Your task to perform on an android device: toggle translation in the chrome app Image 0: 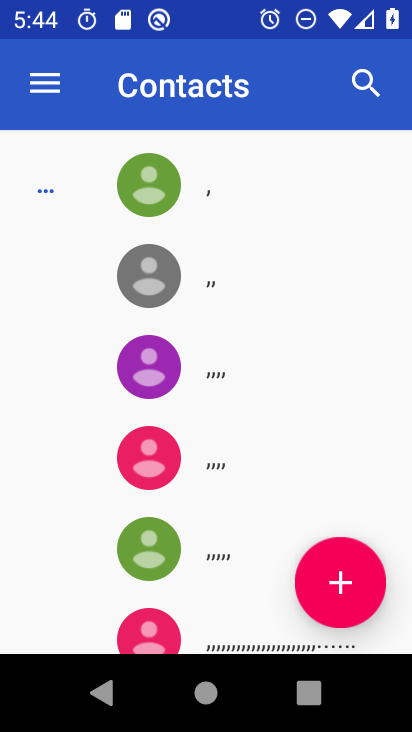
Step 0: press home button
Your task to perform on an android device: toggle translation in the chrome app Image 1: 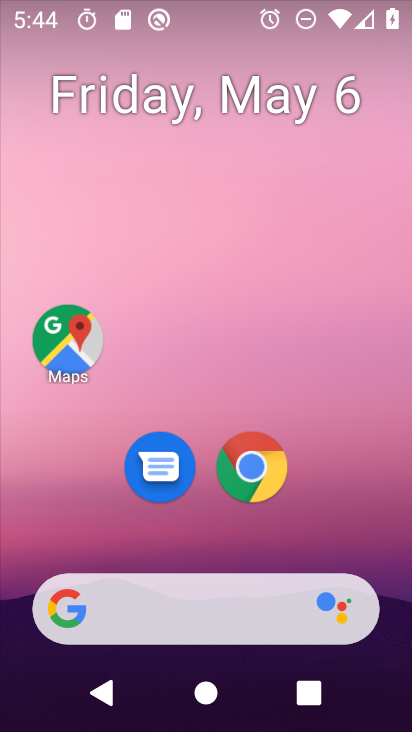
Step 1: drag from (259, 537) to (232, 303)
Your task to perform on an android device: toggle translation in the chrome app Image 2: 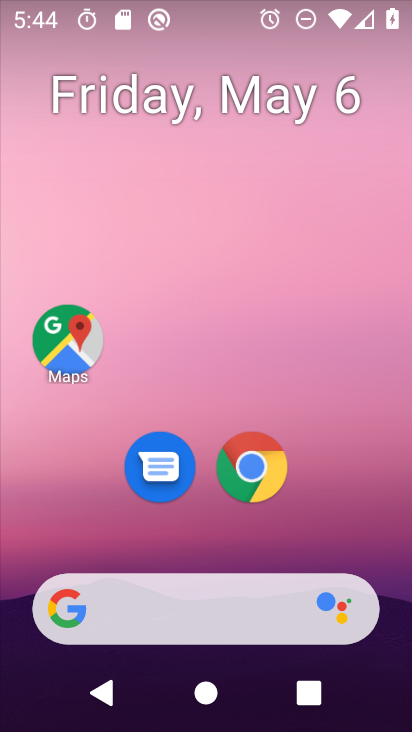
Step 2: click (249, 484)
Your task to perform on an android device: toggle translation in the chrome app Image 3: 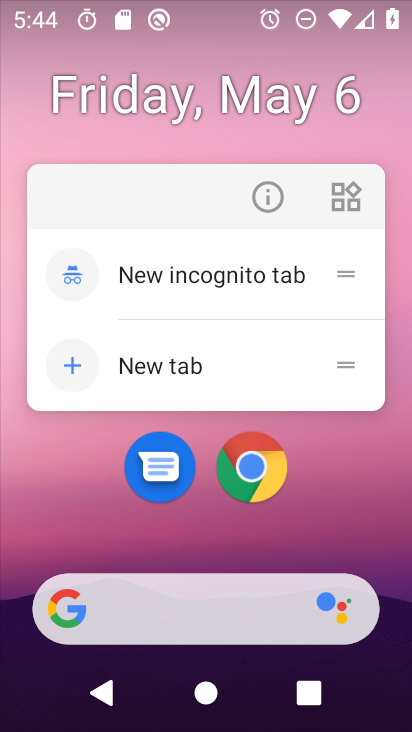
Step 3: click (254, 480)
Your task to perform on an android device: toggle translation in the chrome app Image 4: 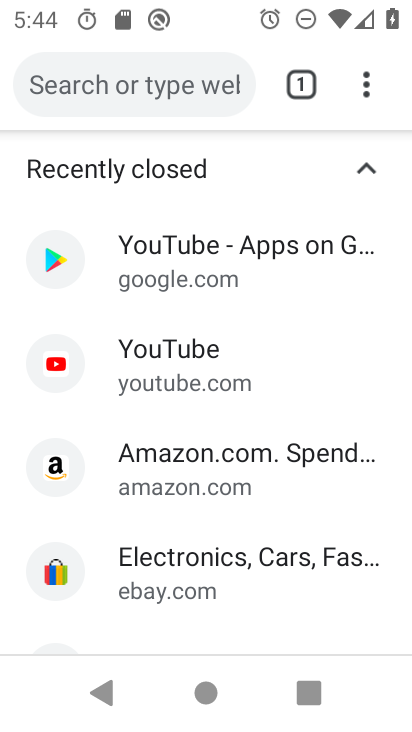
Step 4: click (366, 79)
Your task to perform on an android device: toggle translation in the chrome app Image 5: 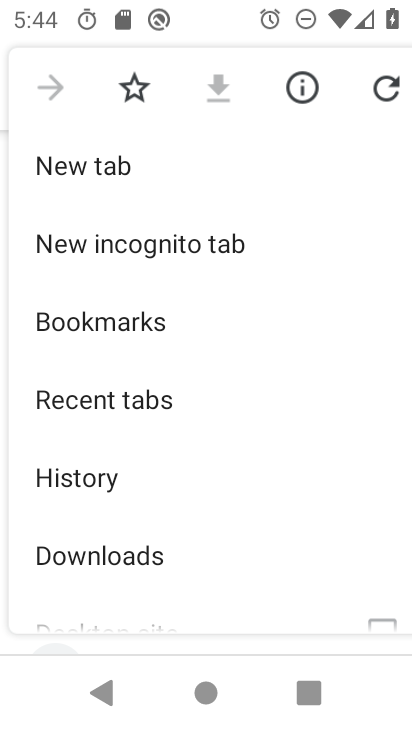
Step 5: drag from (229, 526) to (155, 160)
Your task to perform on an android device: toggle translation in the chrome app Image 6: 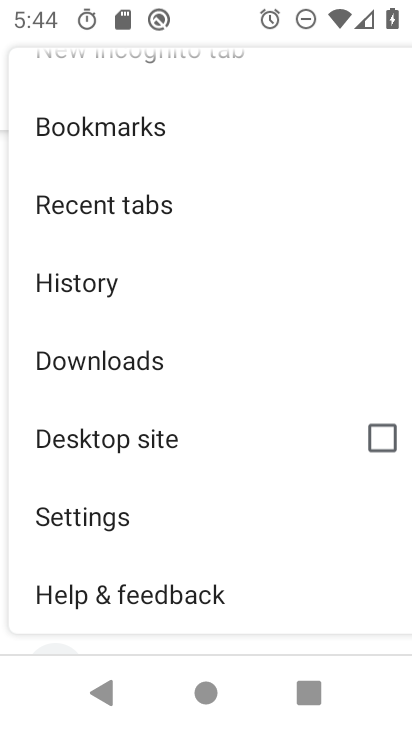
Step 6: click (118, 509)
Your task to perform on an android device: toggle translation in the chrome app Image 7: 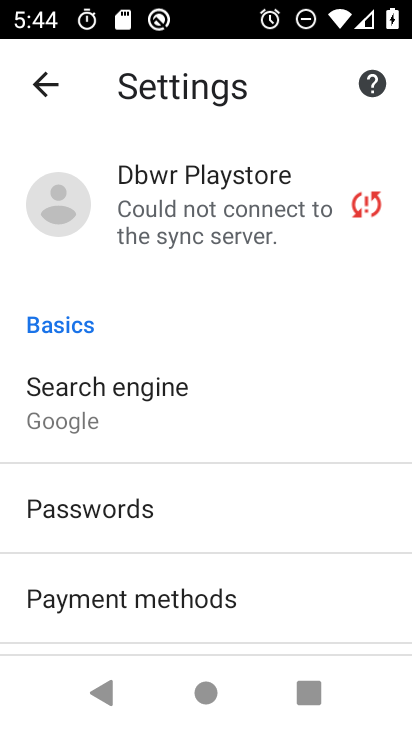
Step 7: drag from (128, 590) to (127, 225)
Your task to perform on an android device: toggle translation in the chrome app Image 8: 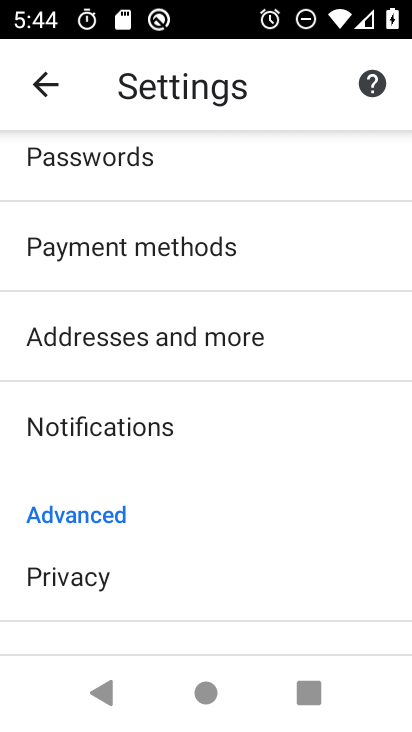
Step 8: drag from (160, 543) to (187, 237)
Your task to perform on an android device: toggle translation in the chrome app Image 9: 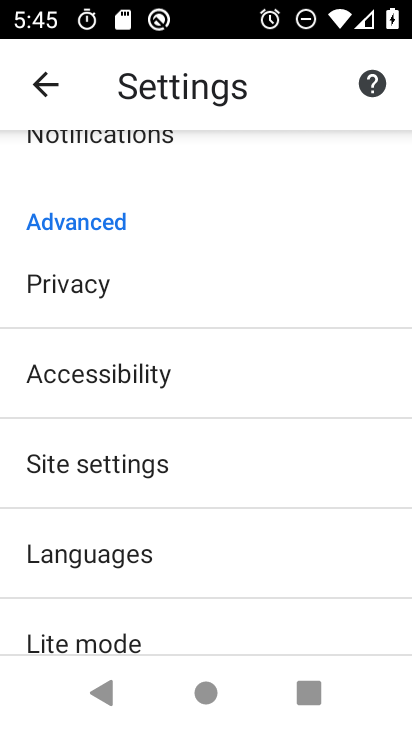
Step 9: drag from (181, 537) to (203, 314)
Your task to perform on an android device: toggle translation in the chrome app Image 10: 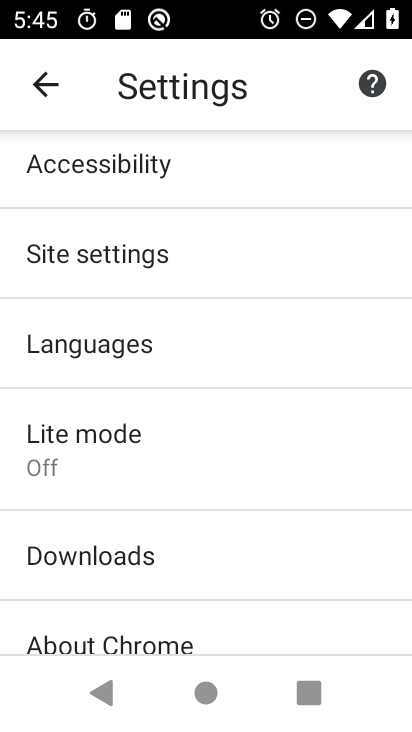
Step 10: click (126, 358)
Your task to perform on an android device: toggle translation in the chrome app Image 11: 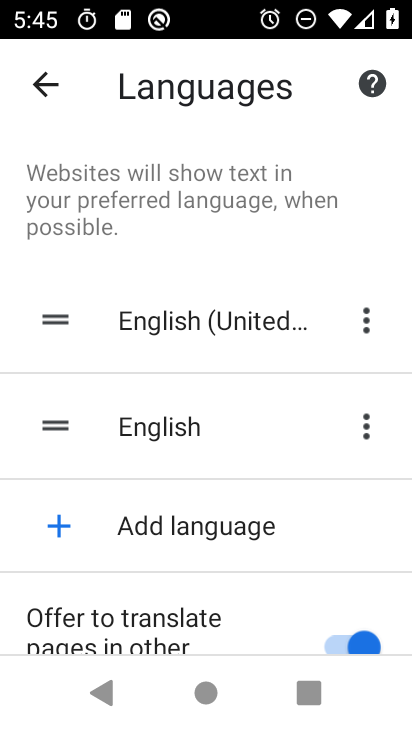
Step 11: click (323, 646)
Your task to perform on an android device: toggle translation in the chrome app Image 12: 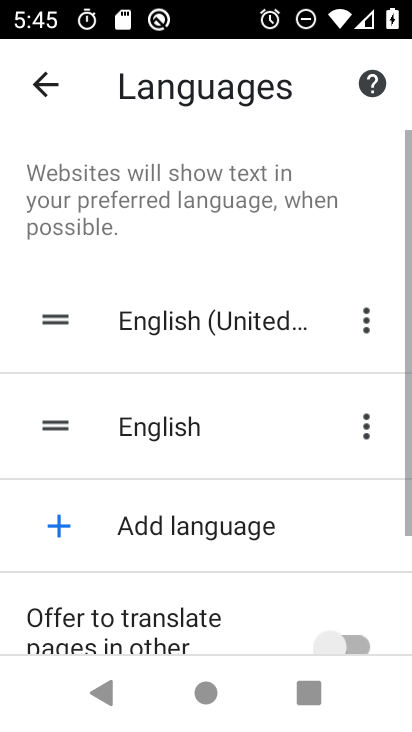
Step 12: task complete